Your task to perform on an android device: Clear the cart on target.com. Search for usb-b on target.com, select the first entry, and add it to the cart. Image 0: 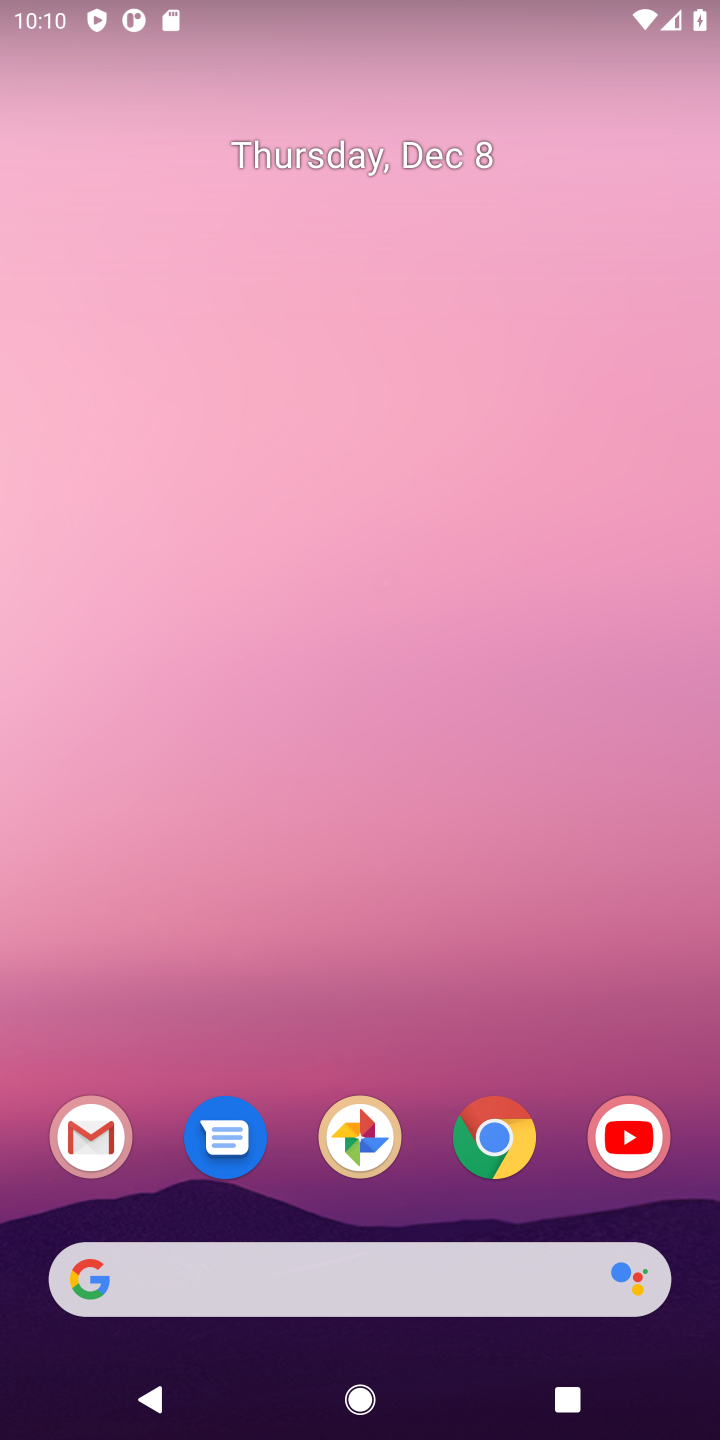
Step 0: click (485, 1132)
Your task to perform on an android device: Clear the cart on target.com. Search for usb-b on target.com, select the first entry, and add it to the cart. Image 1: 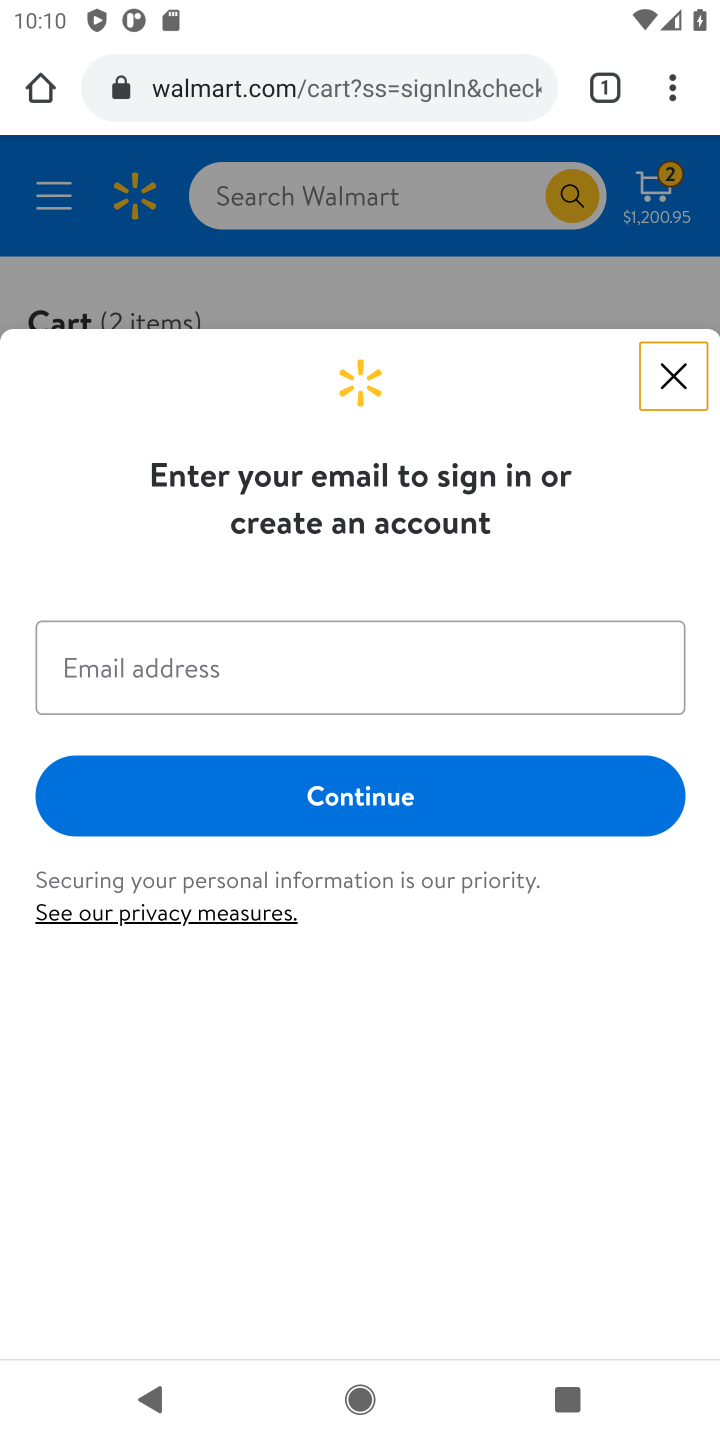
Step 1: click (340, 88)
Your task to perform on an android device: Clear the cart on target.com. Search for usb-b on target.com, select the first entry, and add it to the cart. Image 2: 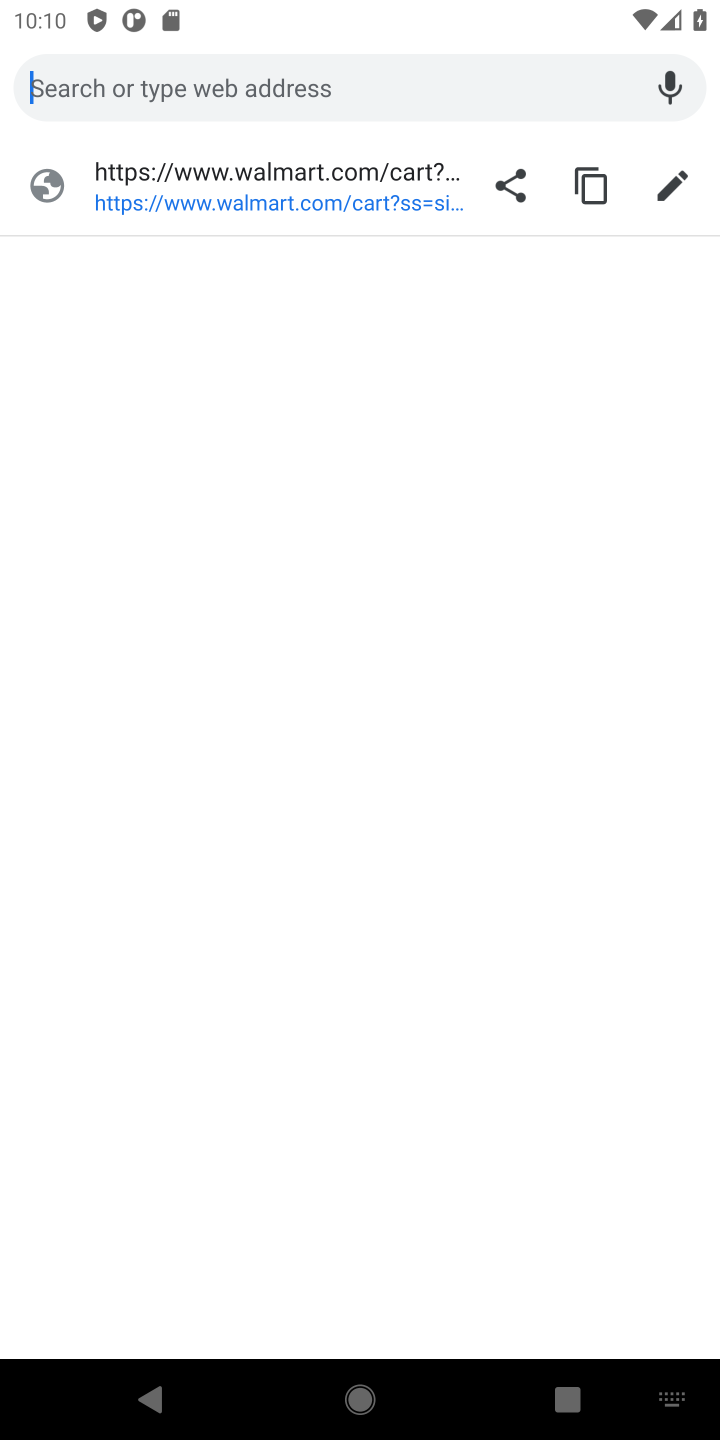
Step 2: type "target"
Your task to perform on an android device: Clear the cart on target.com. Search for usb-b on target.com, select the first entry, and add it to the cart. Image 3: 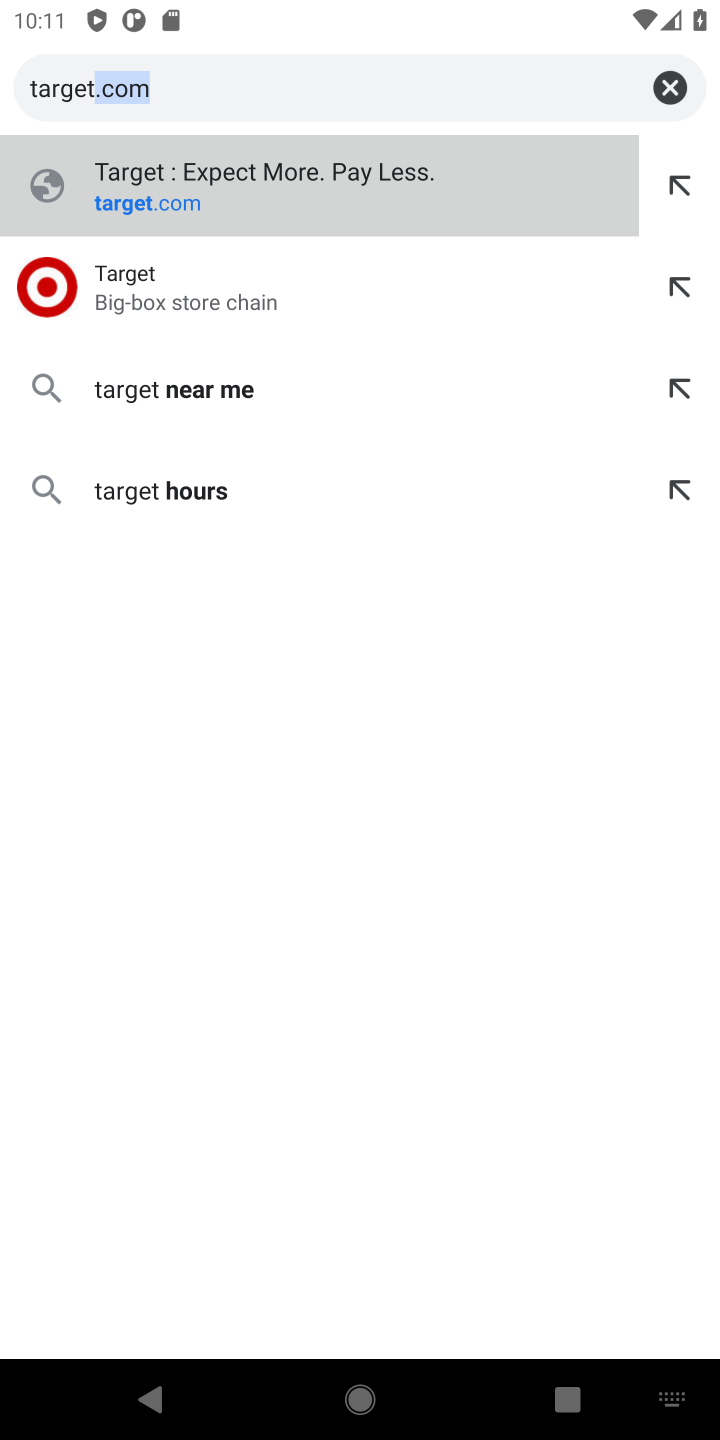
Step 3: click (401, 200)
Your task to perform on an android device: Clear the cart on target.com. Search for usb-b on target.com, select the first entry, and add it to the cart. Image 4: 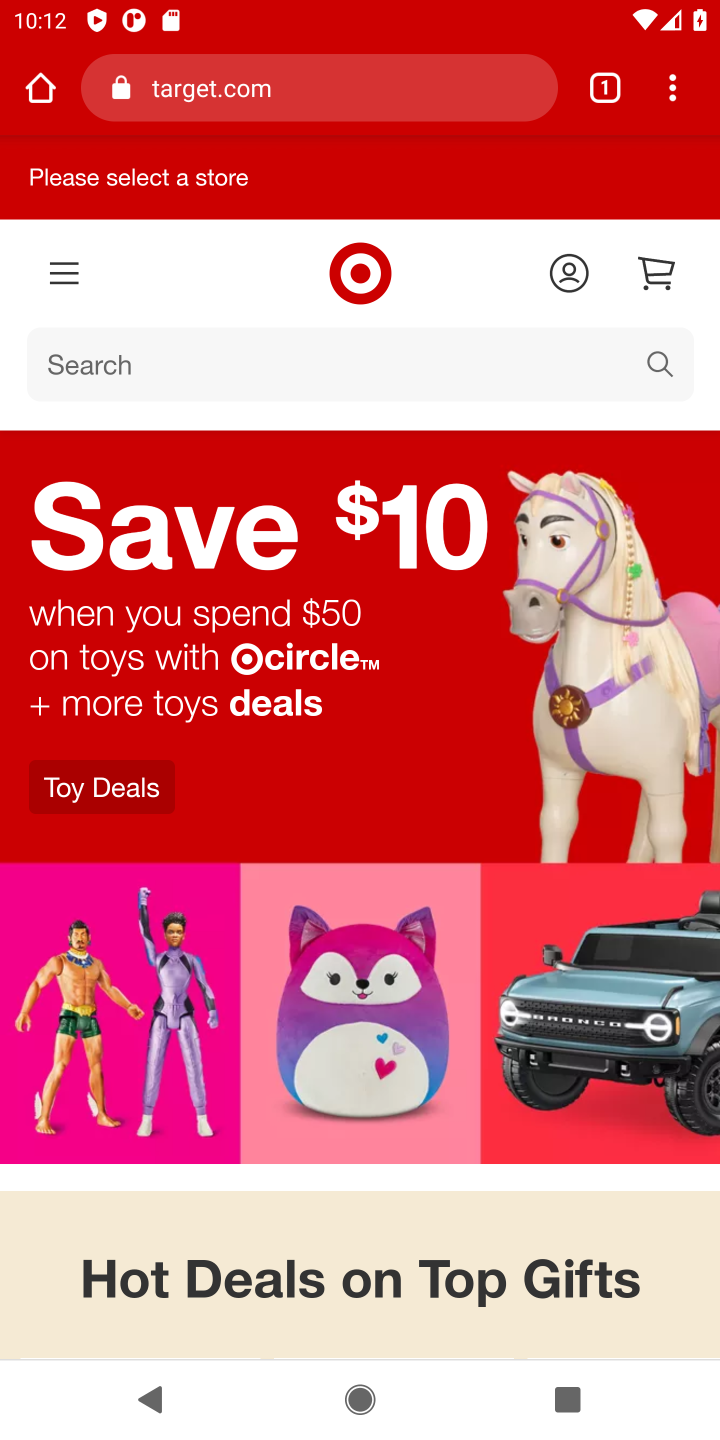
Step 4: click (655, 279)
Your task to perform on an android device: Clear the cart on target.com. Search for usb-b on target.com, select the first entry, and add it to the cart. Image 5: 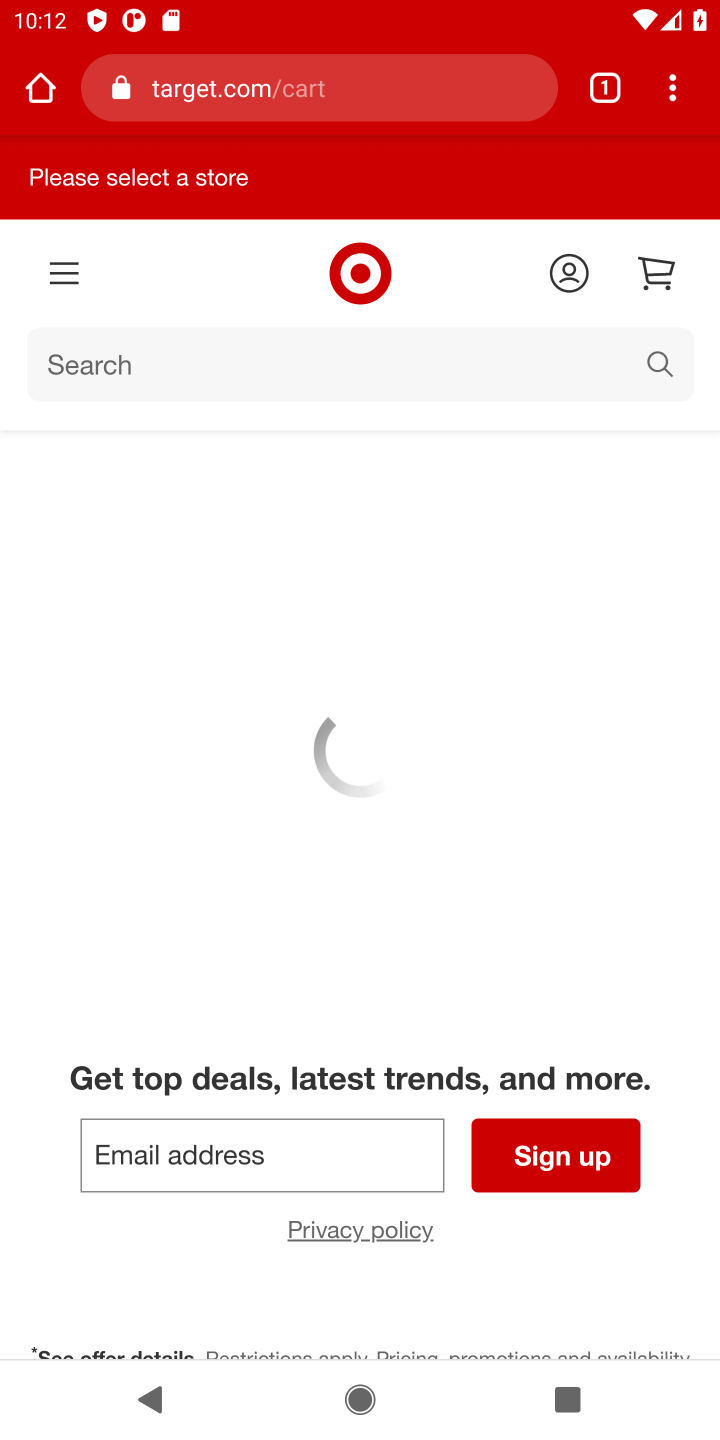
Step 5: click (271, 363)
Your task to perform on an android device: Clear the cart on target.com. Search for usb-b on target.com, select the first entry, and add it to the cart. Image 6: 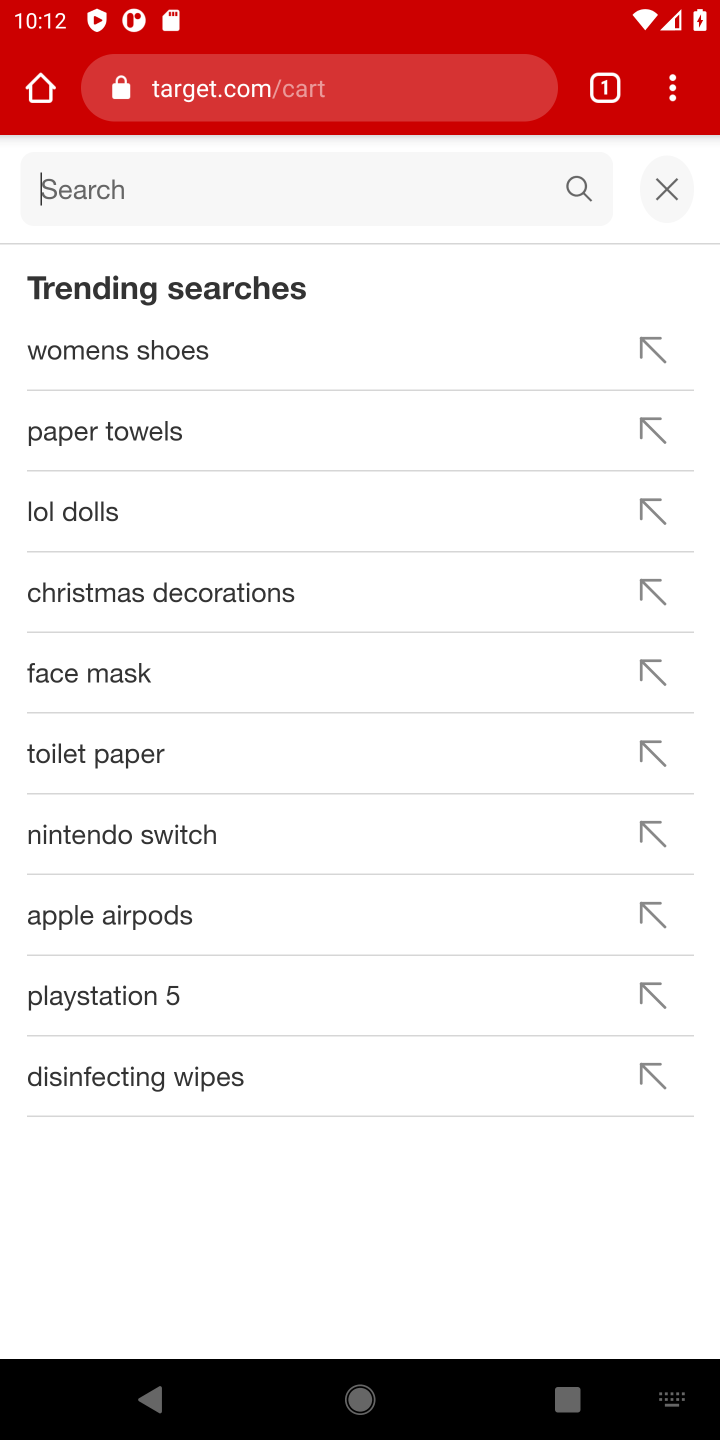
Step 6: click (468, 196)
Your task to perform on an android device: Clear the cart on target.com. Search for usb-b on target.com, select the first entry, and add it to the cart. Image 7: 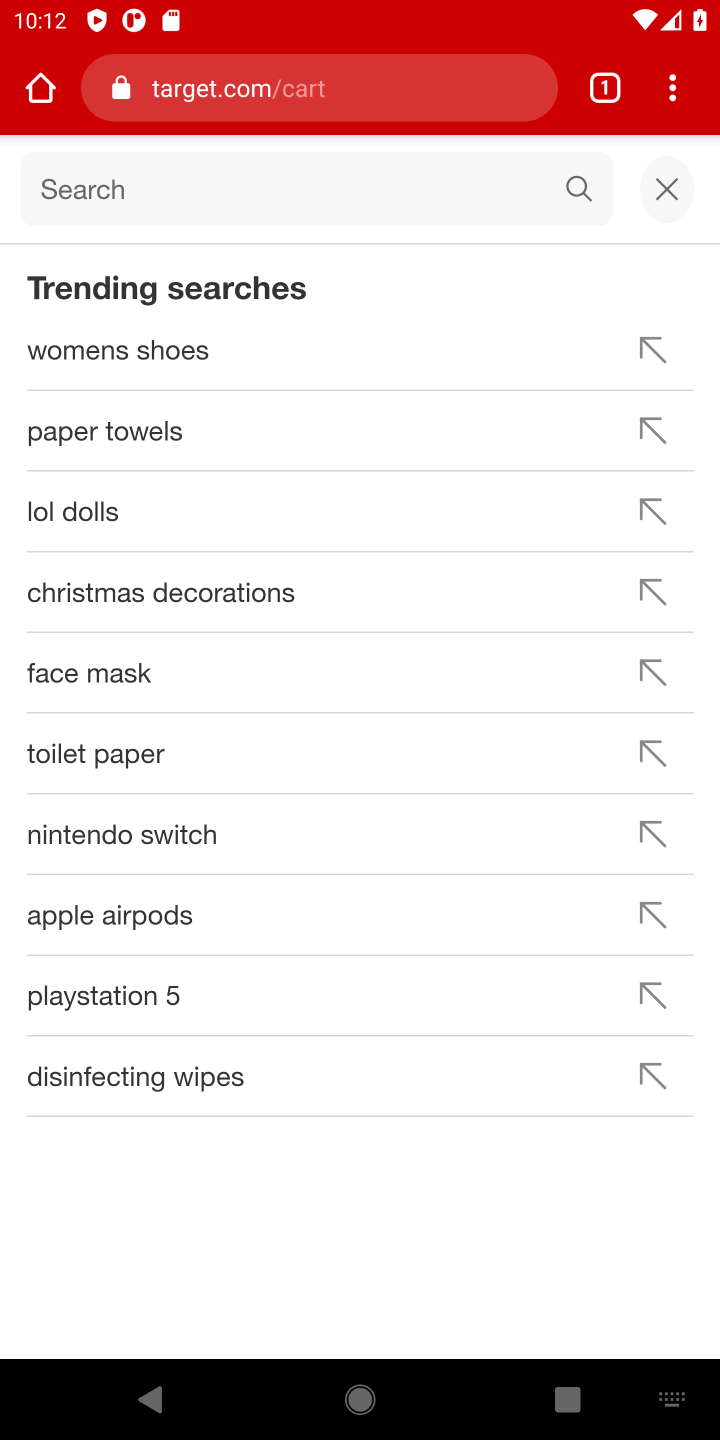
Step 7: type "usb-b"
Your task to perform on an android device: Clear the cart on target.com. Search for usb-b on target.com, select the first entry, and add it to the cart. Image 8: 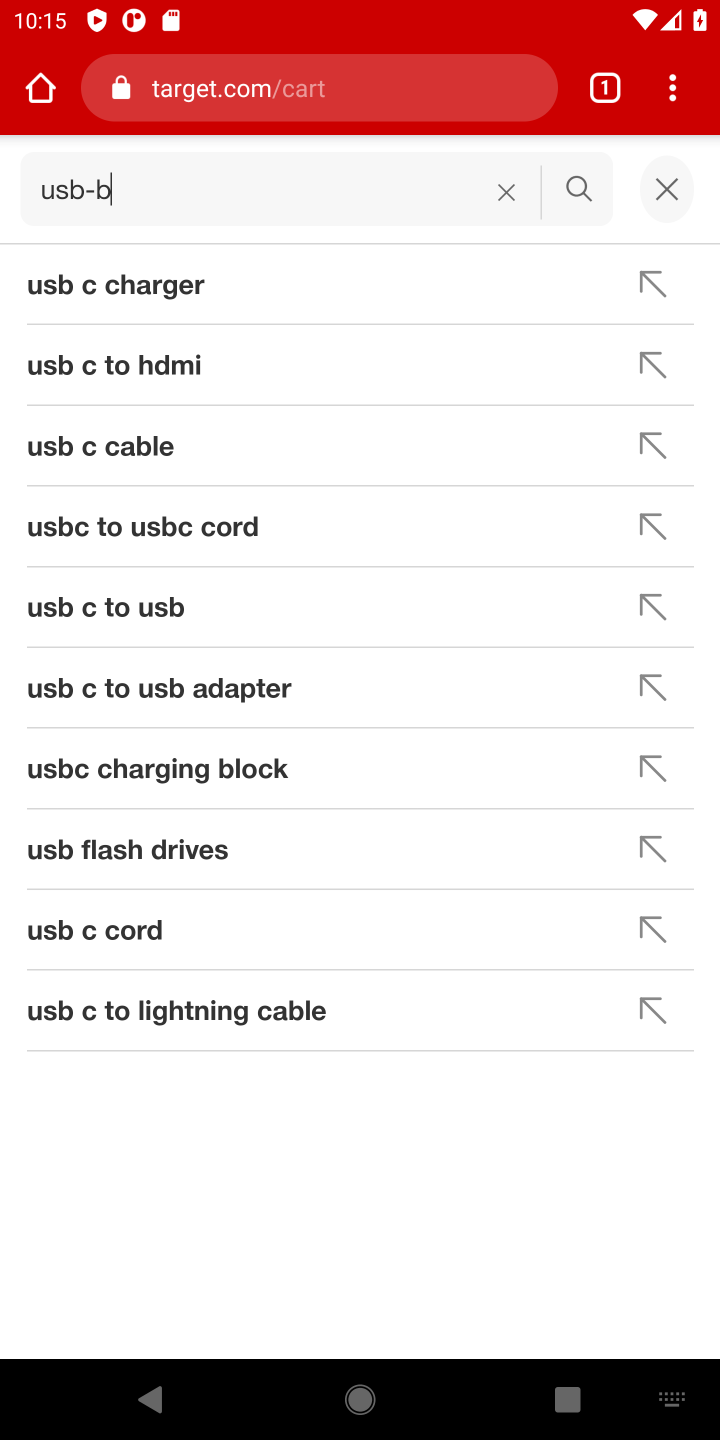
Step 8: click (68, 289)
Your task to perform on an android device: Clear the cart on target.com. Search for usb-b on target.com, select the first entry, and add it to the cart. Image 9: 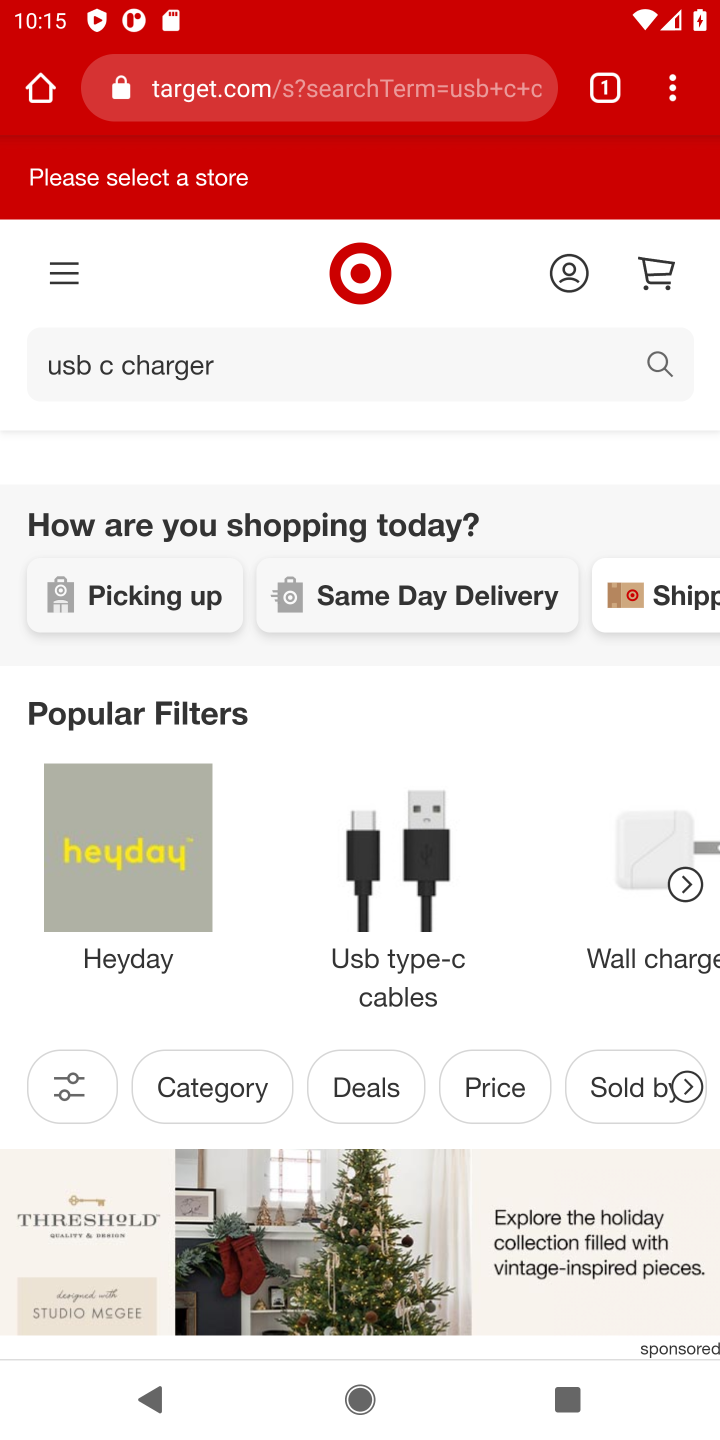
Step 9: drag from (352, 1247) to (364, 503)
Your task to perform on an android device: Clear the cart on target.com. Search for usb-b on target.com, select the first entry, and add it to the cart. Image 10: 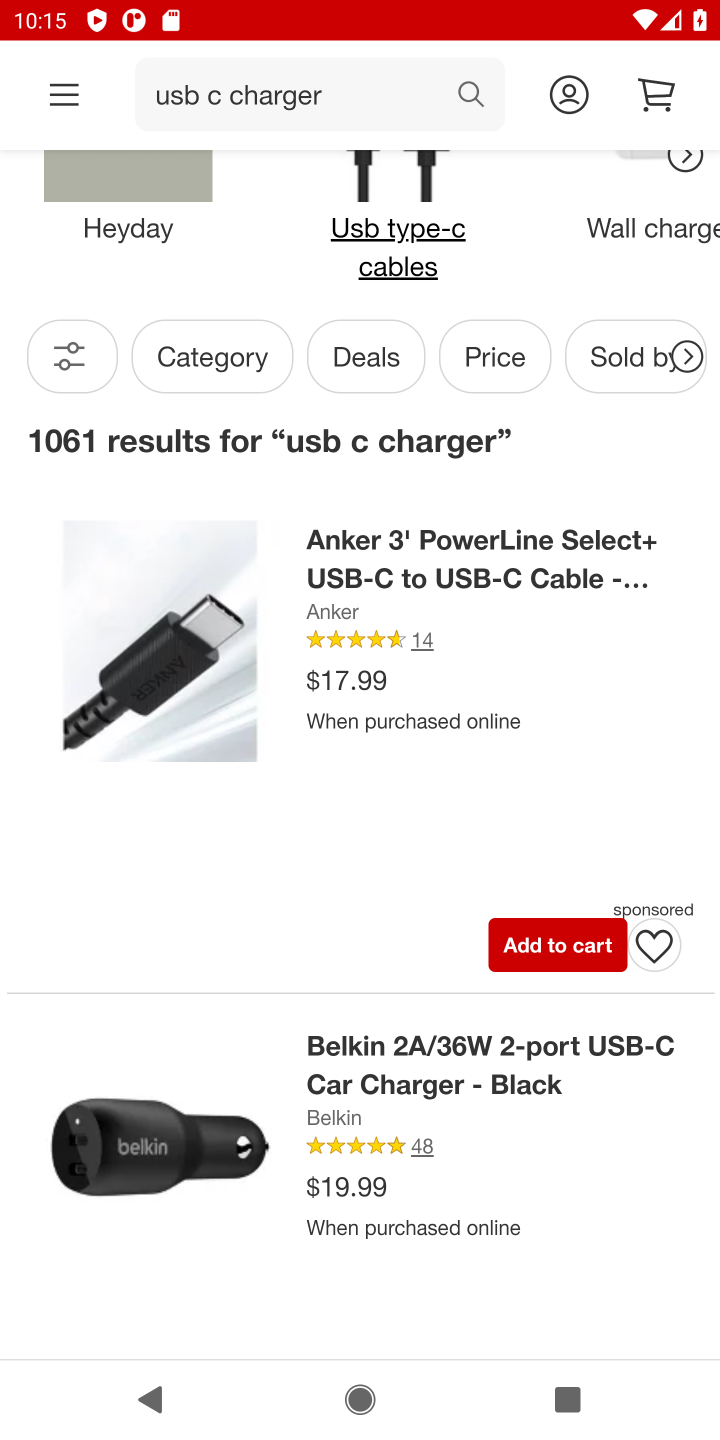
Step 10: click (528, 943)
Your task to perform on an android device: Clear the cart on target.com. Search for usb-b on target.com, select the first entry, and add it to the cart. Image 11: 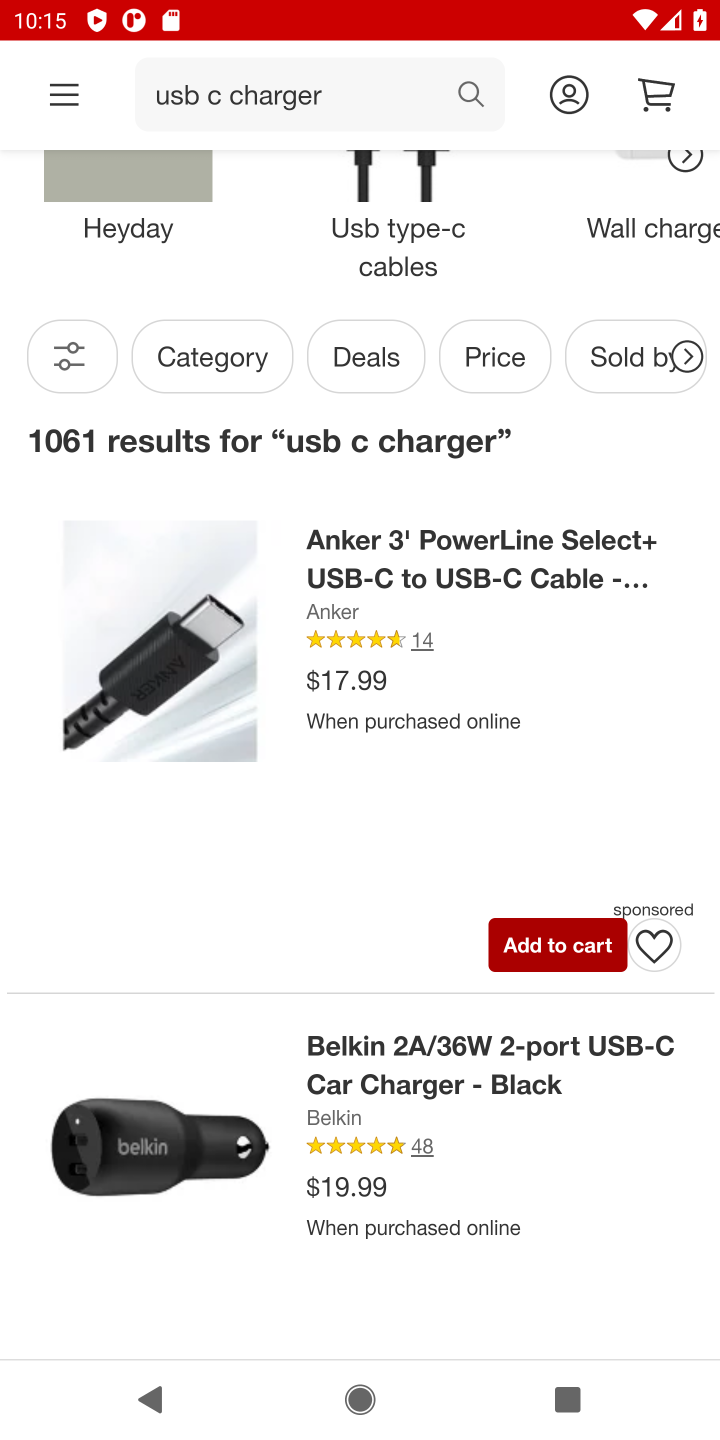
Step 11: task complete